Your task to perform on an android device: Find coffee shops on Maps Image 0: 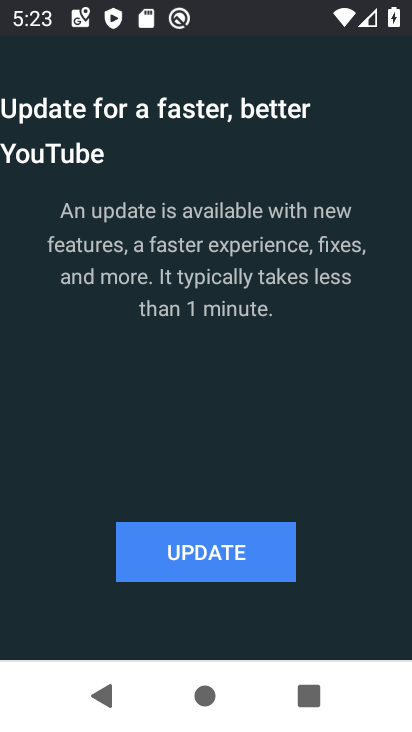
Step 0: press home button
Your task to perform on an android device: Find coffee shops on Maps Image 1: 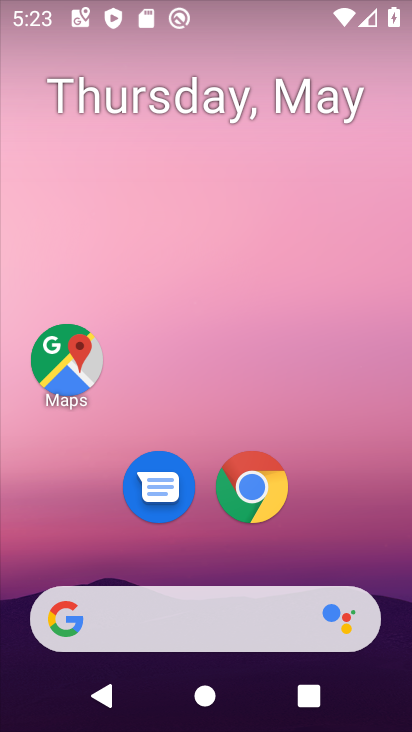
Step 1: click (74, 360)
Your task to perform on an android device: Find coffee shops on Maps Image 2: 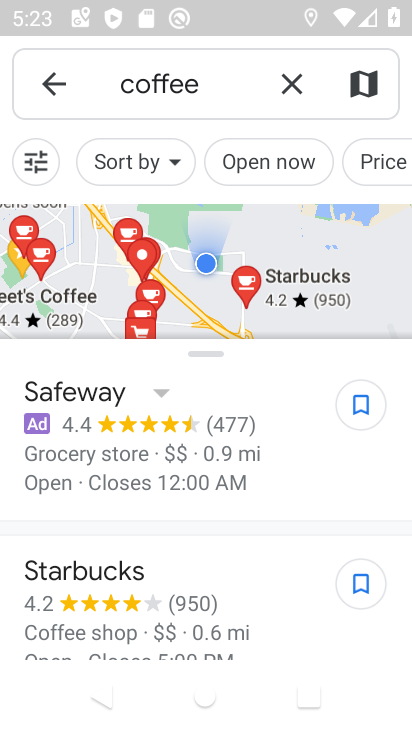
Step 2: task complete